Your task to perform on an android device: Go to wifi settings Image 0: 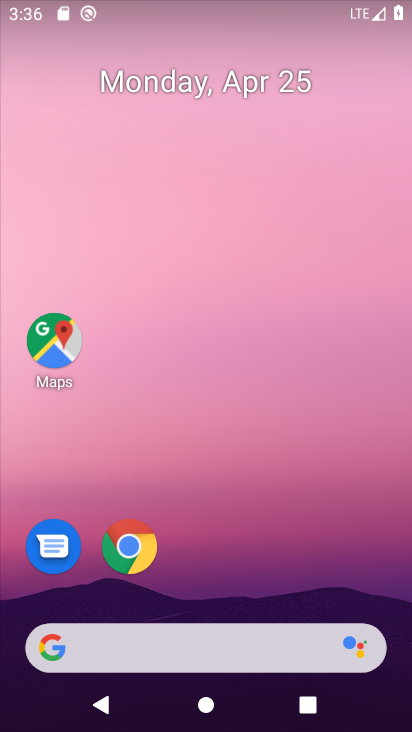
Step 0: drag from (200, 578) to (321, 0)
Your task to perform on an android device: Go to wifi settings Image 1: 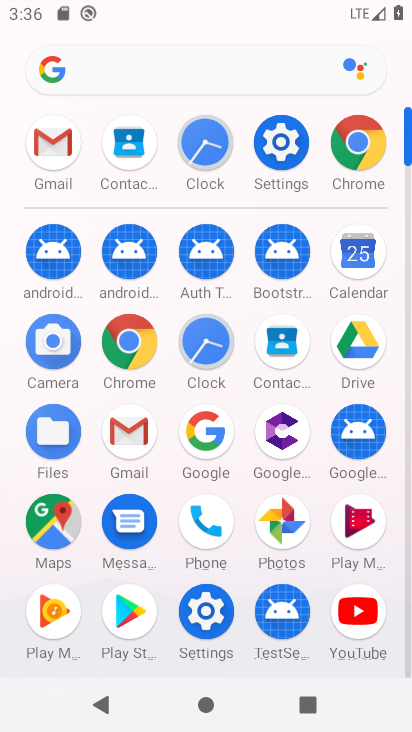
Step 1: click (286, 130)
Your task to perform on an android device: Go to wifi settings Image 2: 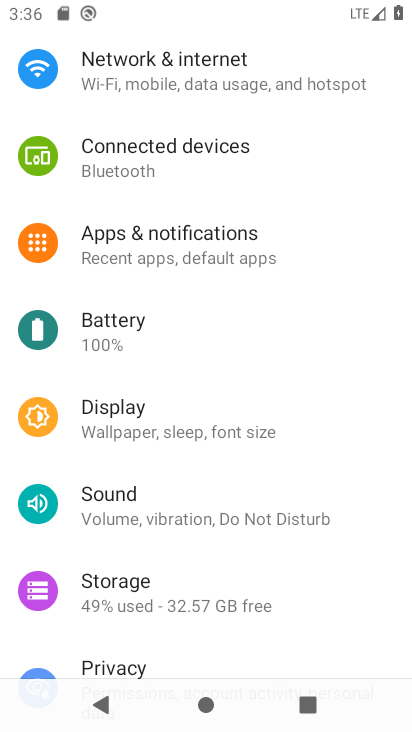
Step 2: click (223, 97)
Your task to perform on an android device: Go to wifi settings Image 3: 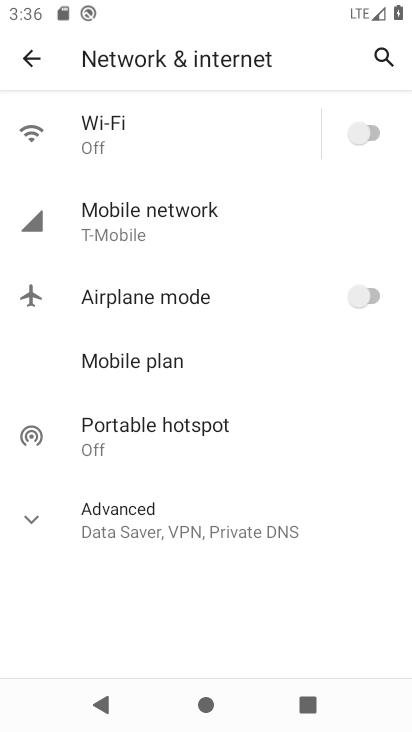
Step 3: click (40, 148)
Your task to perform on an android device: Go to wifi settings Image 4: 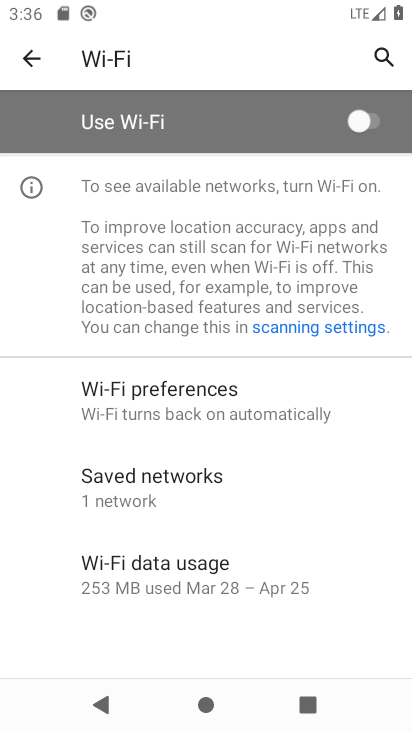
Step 4: task complete